Your task to perform on an android device: turn off wifi Image 0: 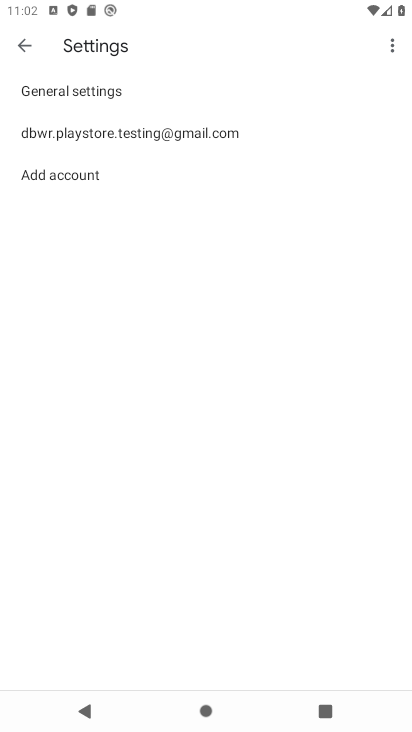
Step 0: press home button
Your task to perform on an android device: turn off wifi Image 1: 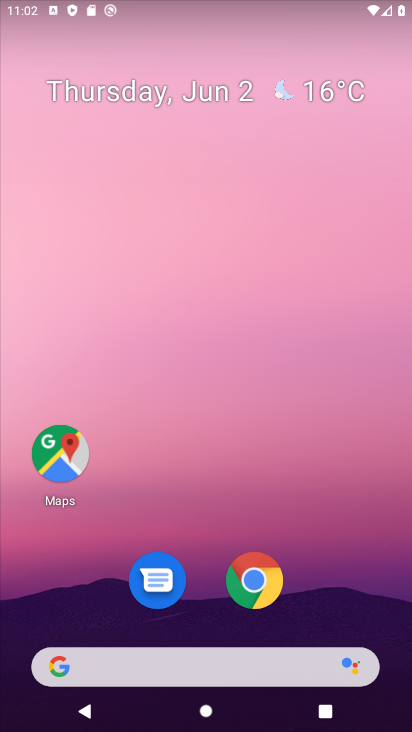
Step 1: drag from (281, 561) to (305, 274)
Your task to perform on an android device: turn off wifi Image 2: 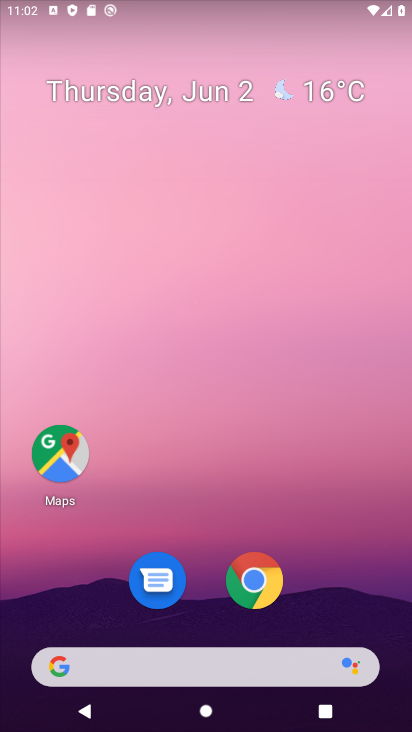
Step 2: drag from (234, 522) to (270, 150)
Your task to perform on an android device: turn off wifi Image 3: 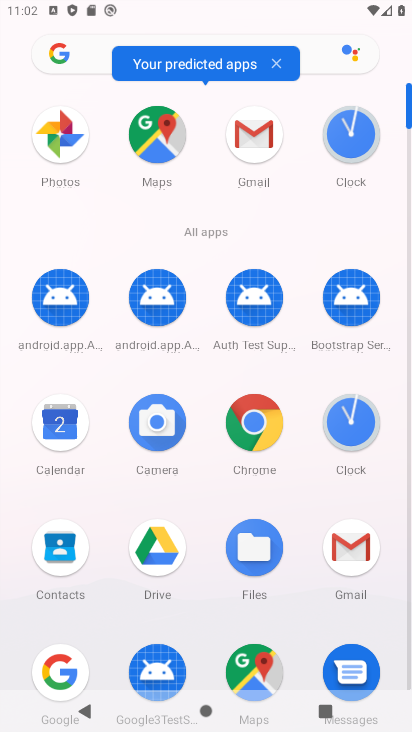
Step 3: click (306, 212)
Your task to perform on an android device: turn off wifi Image 4: 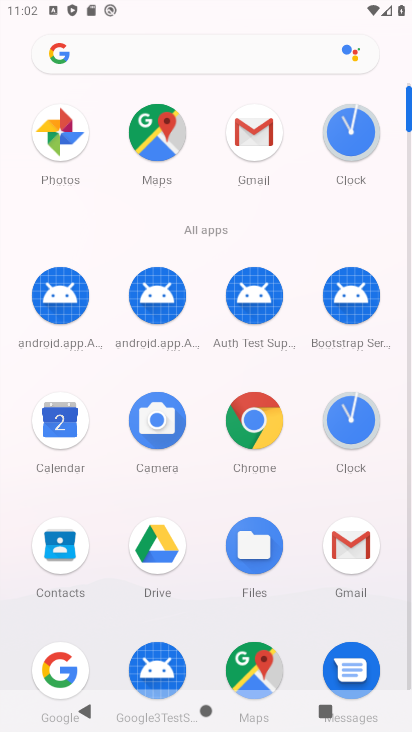
Step 4: drag from (266, 376) to (305, 135)
Your task to perform on an android device: turn off wifi Image 5: 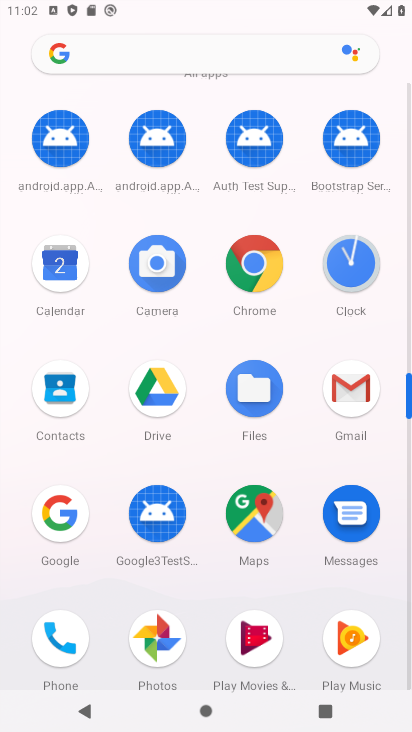
Step 5: drag from (227, 374) to (256, 199)
Your task to perform on an android device: turn off wifi Image 6: 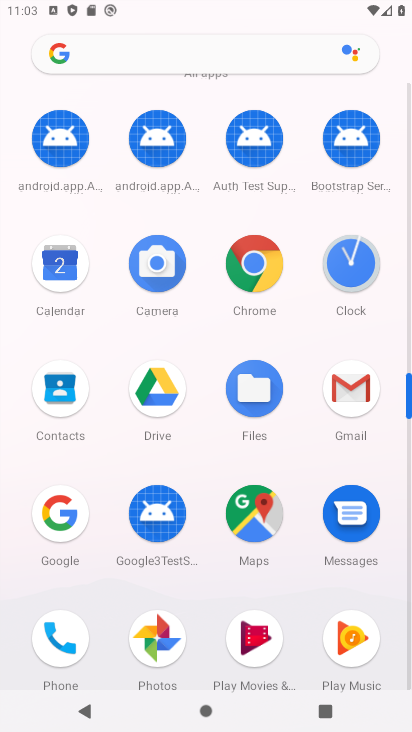
Step 6: drag from (239, 514) to (307, 66)
Your task to perform on an android device: turn off wifi Image 7: 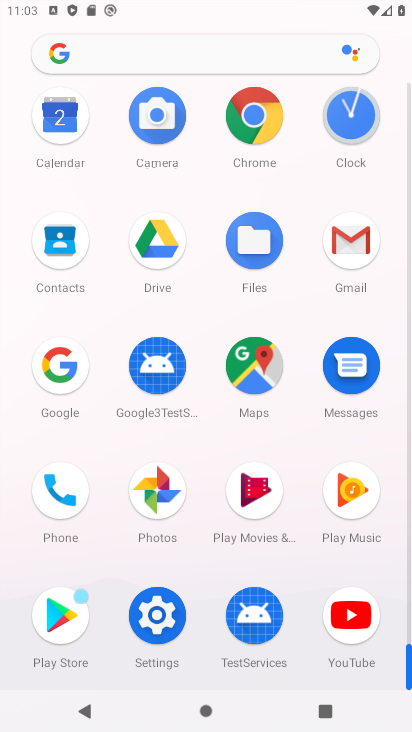
Step 7: click (168, 626)
Your task to perform on an android device: turn off wifi Image 8: 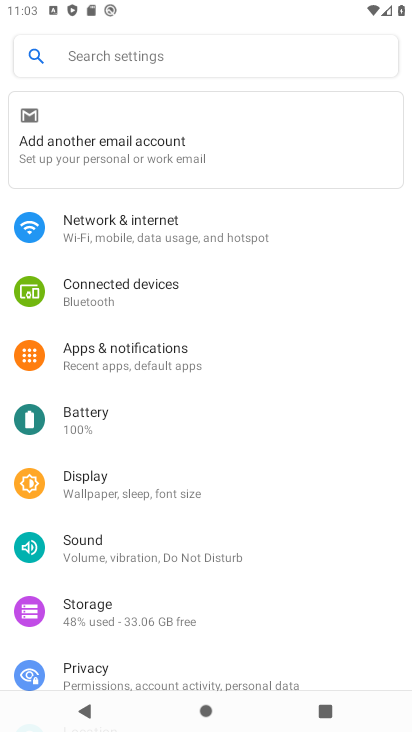
Step 8: click (223, 231)
Your task to perform on an android device: turn off wifi Image 9: 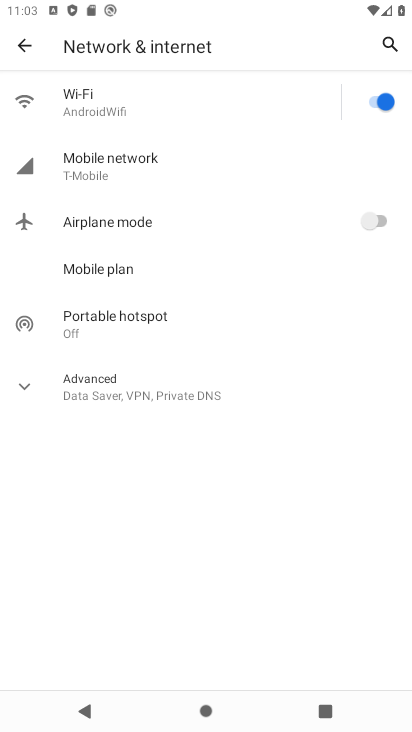
Step 9: click (372, 103)
Your task to perform on an android device: turn off wifi Image 10: 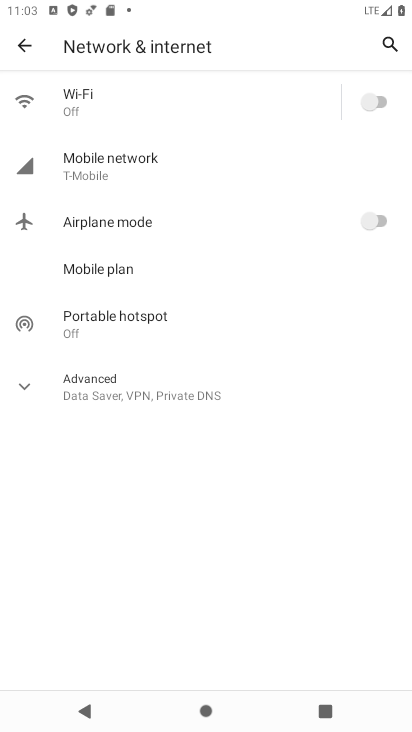
Step 10: task complete